Your task to perform on an android device: read, delete, or share a saved page in the chrome app Image 0: 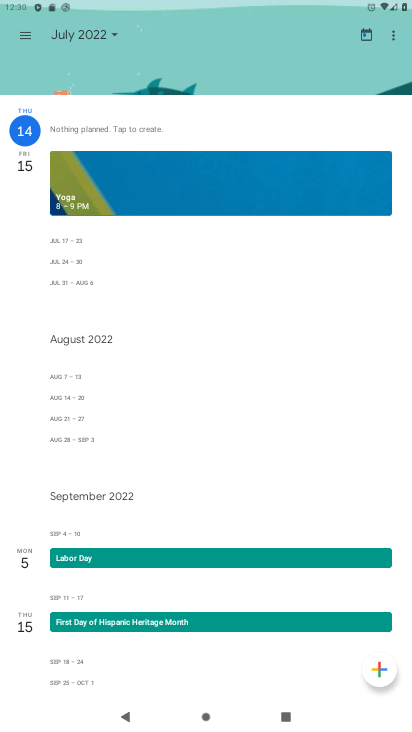
Step 0: press home button
Your task to perform on an android device: read, delete, or share a saved page in the chrome app Image 1: 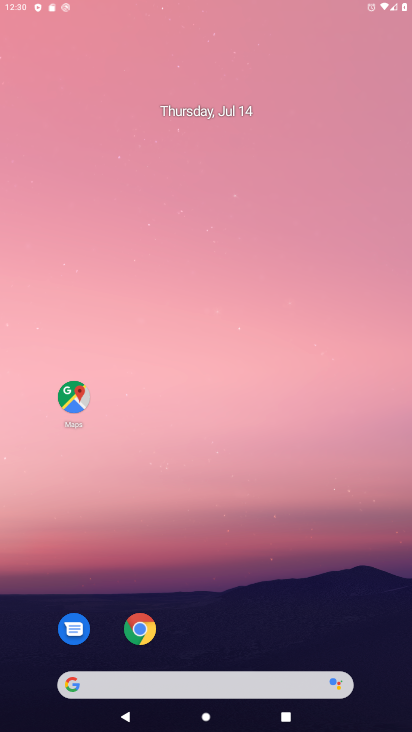
Step 1: press home button
Your task to perform on an android device: read, delete, or share a saved page in the chrome app Image 2: 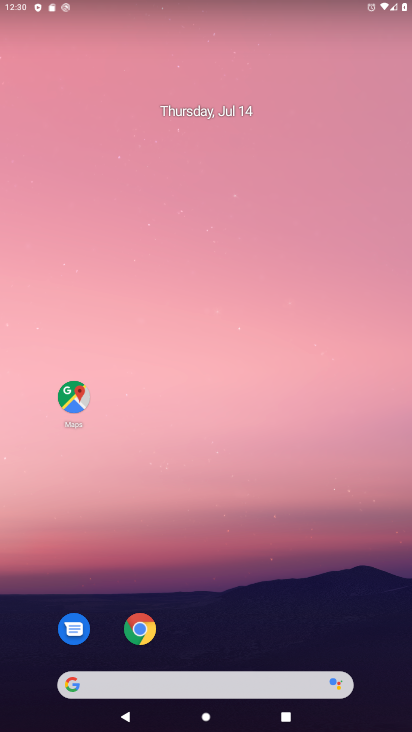
Step 2: click (140, 623)
Your task to perform on an android device: read, delete, or share a saved page in the chrome app Image 3: 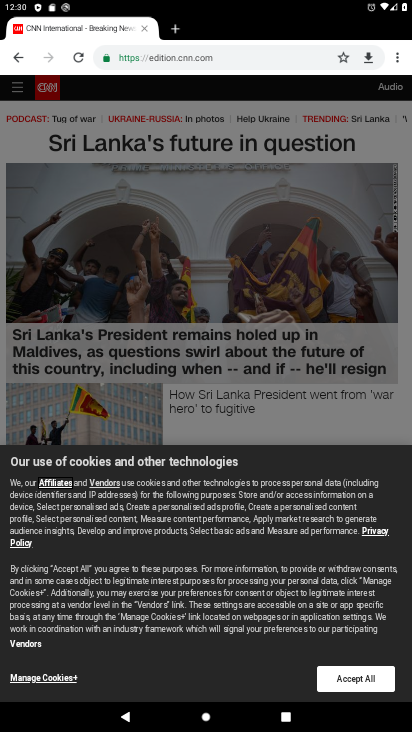
Step 3: click (389, 67)
Your task to perform on an android device: read, delete, or share a saved page in the chrome app Image 4: 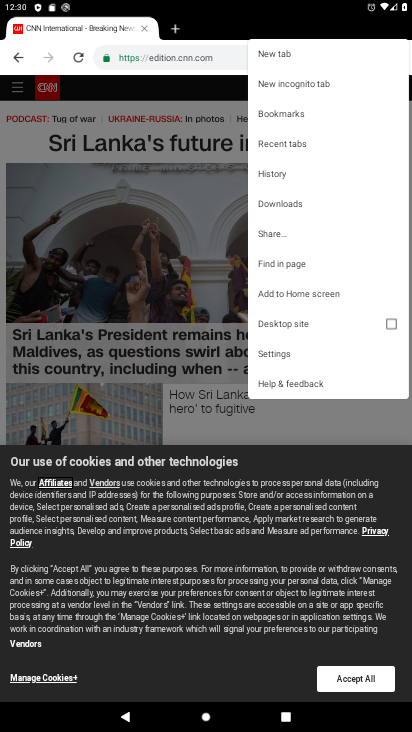
Step 4: click (291, 202)
Your task to perform on an android device: read, delete, or share a saved page in the chrome app Image 5: 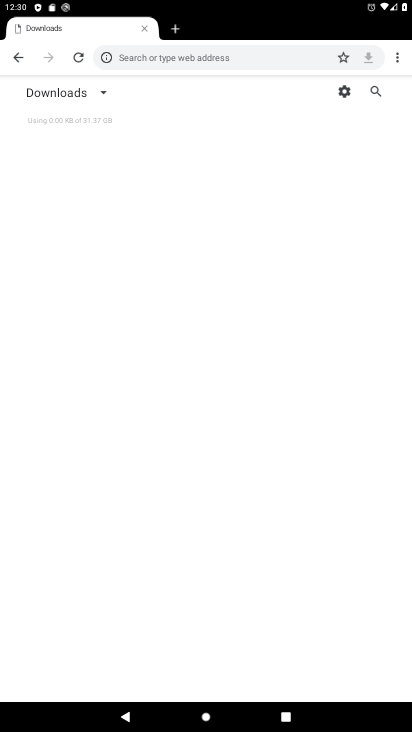
Step 5: task complete